Your task to perform on an android device: turn on javascript in the chrome app Image 0: 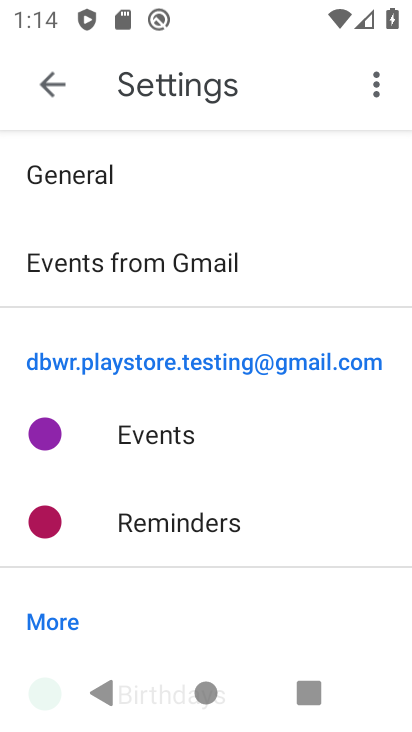
Step 0: press home button
Your task to perform on an android device: turn on javascript in the chrome app Image 1: 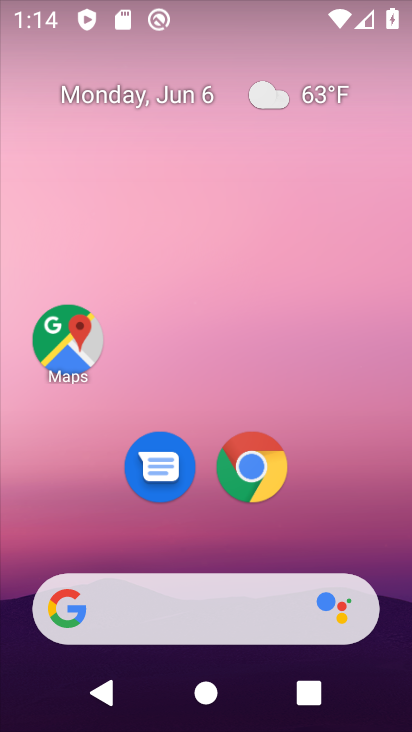
Step 1: drag from (374, 577) to (275, 78)
Your task to perform on an android device: turn on javascript in the chrome app Image 2: 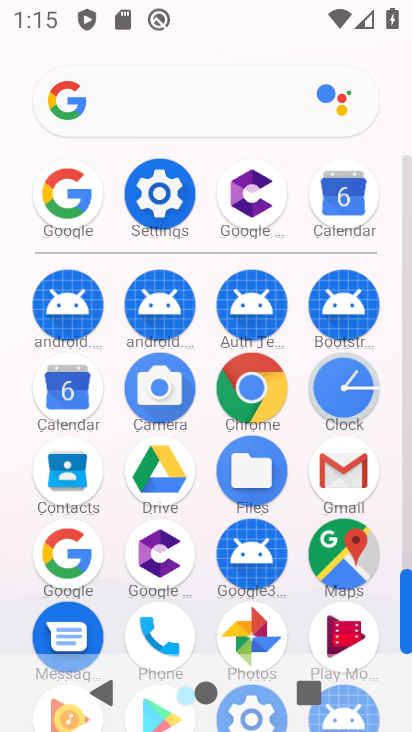
Step 2: click (261, 384)
Your task to perform on an android device: turn on javascript in the chrome app Image 3: 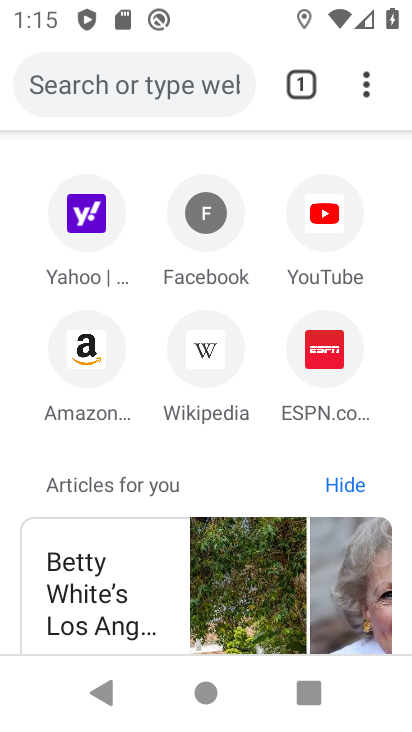
Step 3: click (365, 69)
Your task to perform on an android device: turn on javascript in the chrome app Image 4: 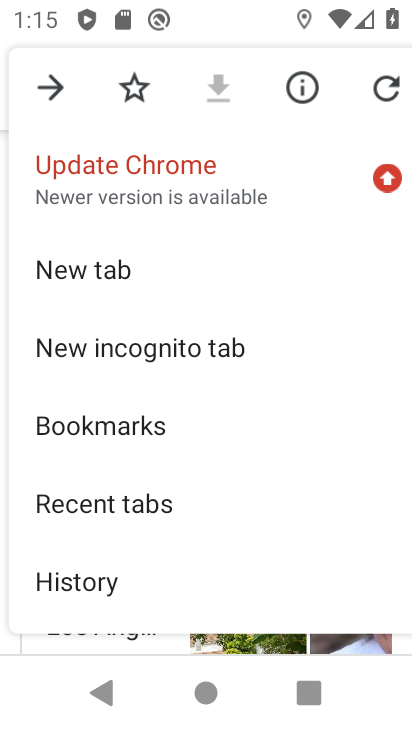
Step 4: drag from (182, 567) to (214, 335)
Your task to perform on an android device: turn on javascript in the chrome app Image 5: 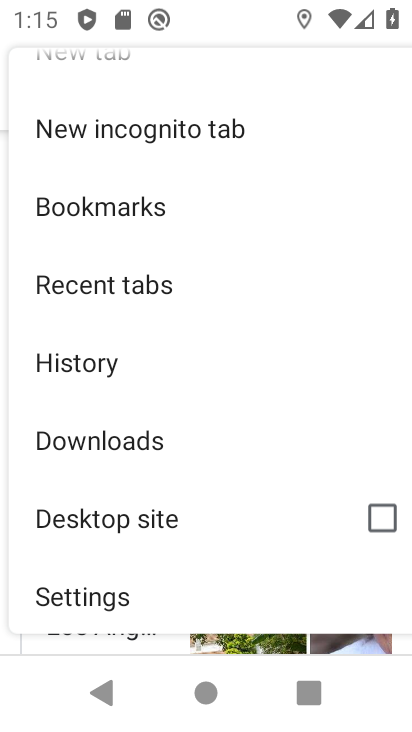
Step 5: click (100, 628)
Your task to perform on an android device: turn on javascript in the chrome app Image 6: 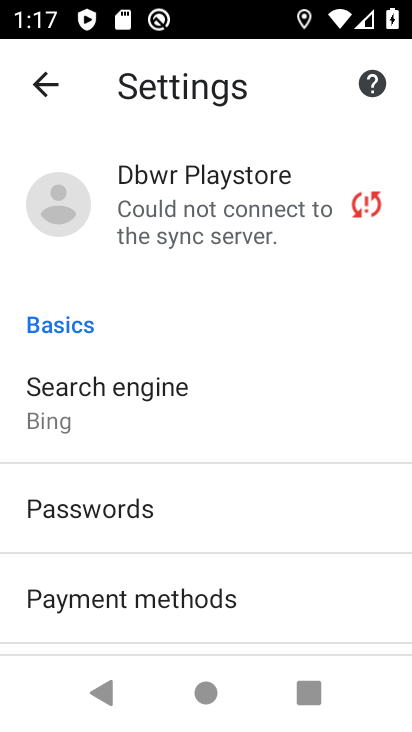
Step 6: drag from (202, 556) to (274, 203)
Your task to perform on an android device: turn on javascript in the chrome app Image 7: 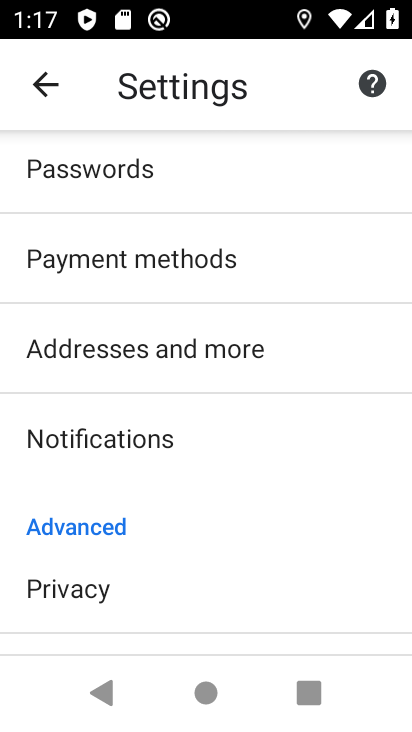
Step 7: drag from (120, 592) to (211, 199)
Your task to perform on an android device: turn on javascript in the chrome app Image 8: 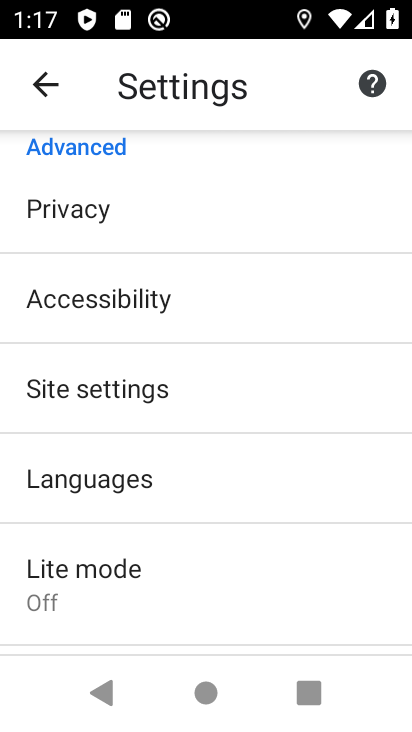
Step 8: click (185, 387)
Your task to perform on an android device: turn on javascript in the chrome app Image 9: 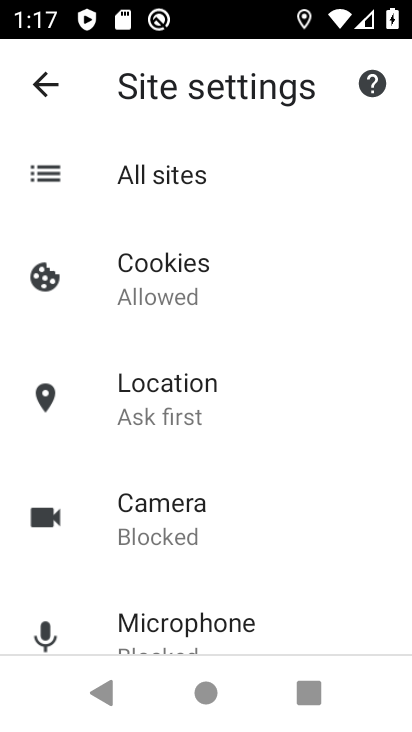
Step 9: drag from (204, 468) to (229, 256)
Your task to perform on an android device: turn on javascript in the chrome app Image 10: 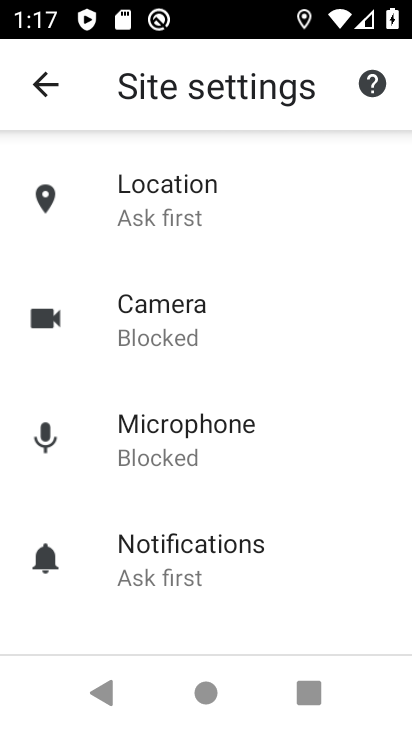
Step 10: drag from (239, 360) to (288, 119)
Your task to perform on an android device: turn on javascript in the chrome app Image 11: 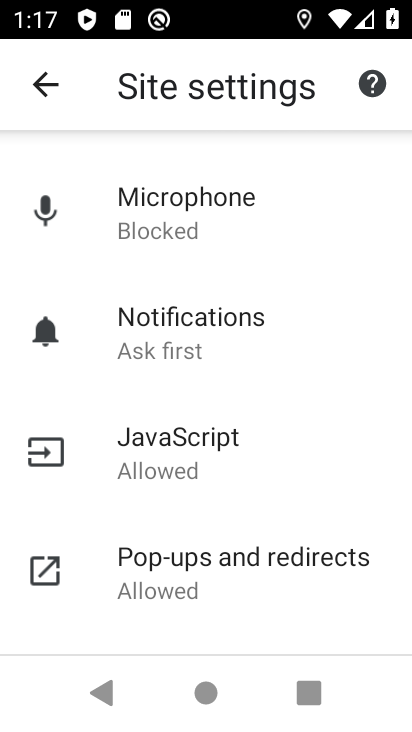
Step 11: click (209, 462)
Your task to perform on an android device: turn on javascript in the chrome app Image 12: 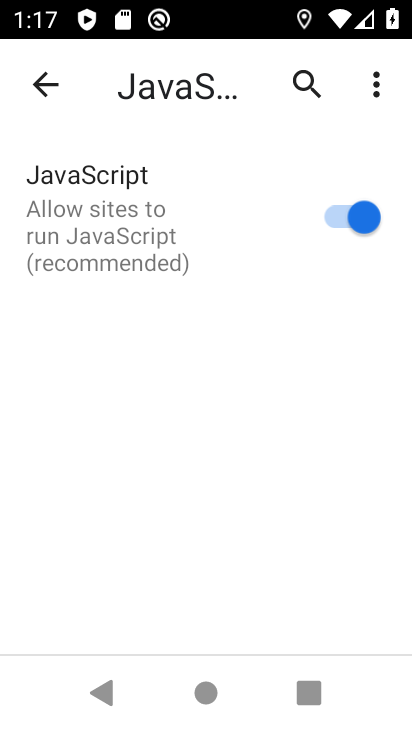
Step 12: task complete